Your task to perform on an android device: Search for pizza restaurants on Maps Image 0: 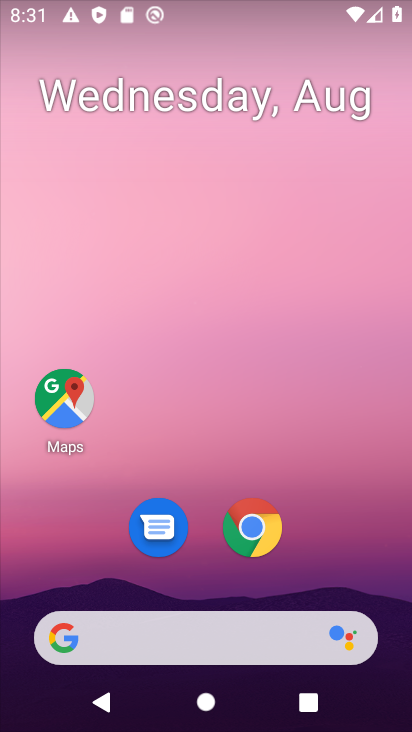
Step 0: click (60, 398)
Your task to perform on an android device: Search for pizza restaurants on Maps Image 1: 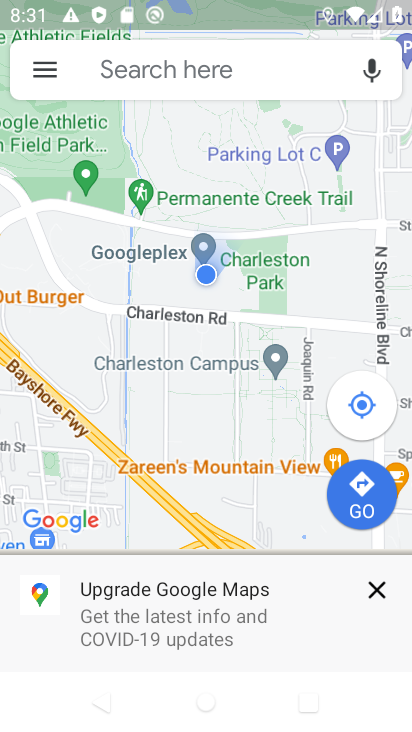
Step 1: click (47, 66)
Your task to perform on an android device: Search for pizza restaurants on Maps Image 2: 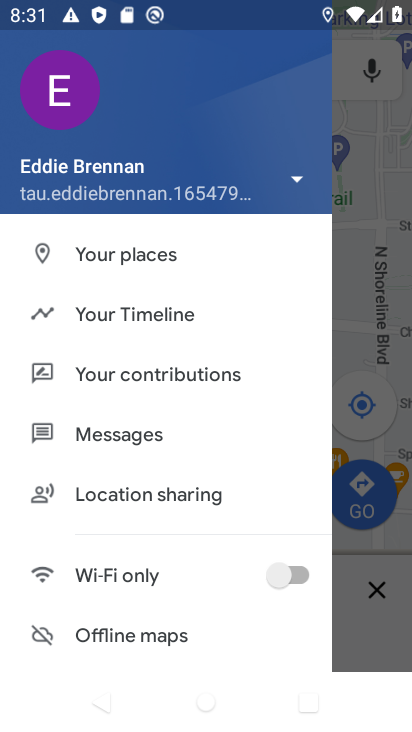
Step 2: click (342, 101)
Your task to perform on an android device: Search for pizza restaurants on Maps Image 3: 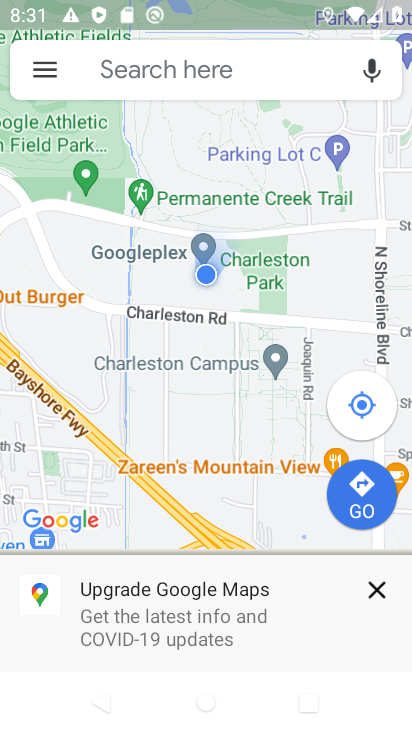
Step 3: click (288, 62)
Your task to perform on an android device: Search for pizza restaurants on Maps Image 4: 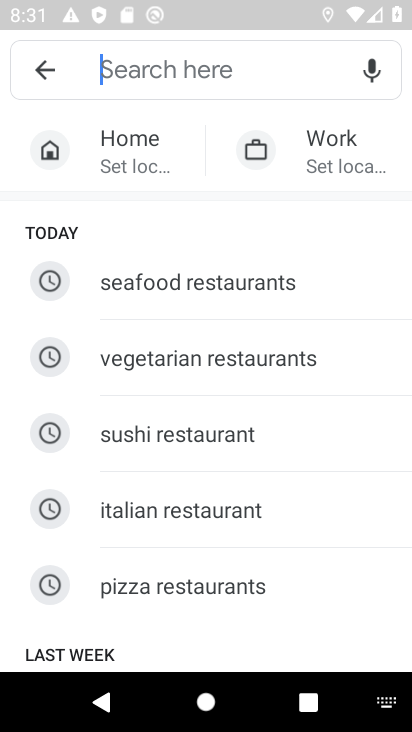
Step 4: click (157, 585)
Your task to perform on an android device: Search for pizza restaurants on Maps Image 5: 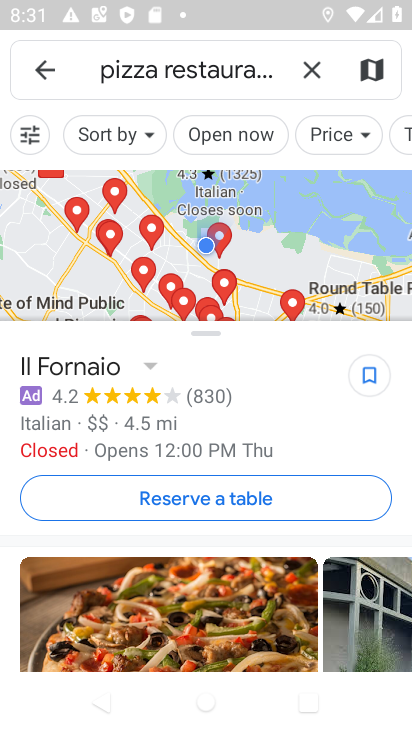
Step 5: task complete